Your task to perform on an android device: open wifi settings Image 0: 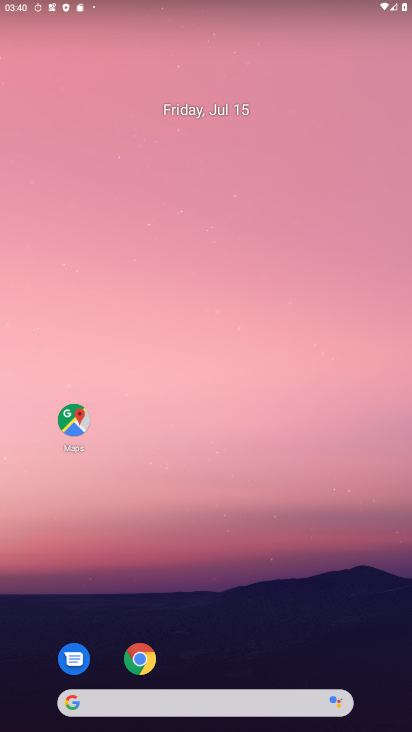
Step 0: drag from (292, 586) to (322, 0)
Your task to perform on an android device: open wifi settings Image 1: 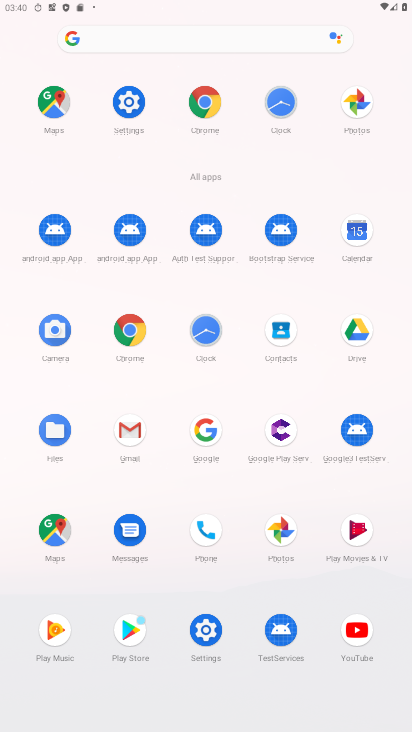
Step 1: click (125, 107)
Your task to perform on an android device: open wifi settings Image 2: 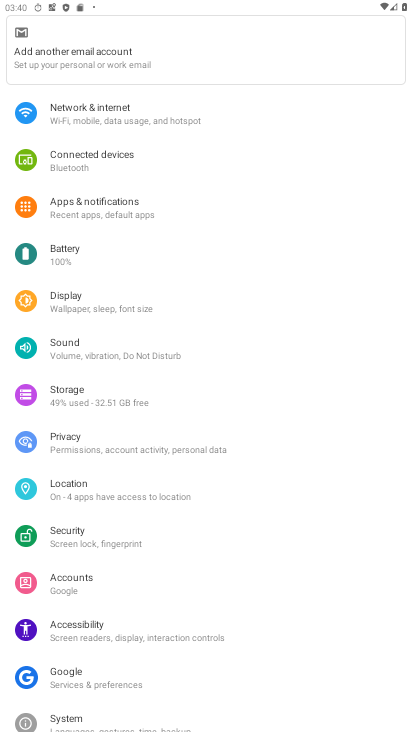
Step 2: click (115, 124)
Your task to perform on an android device: open wifi settings Image 3: 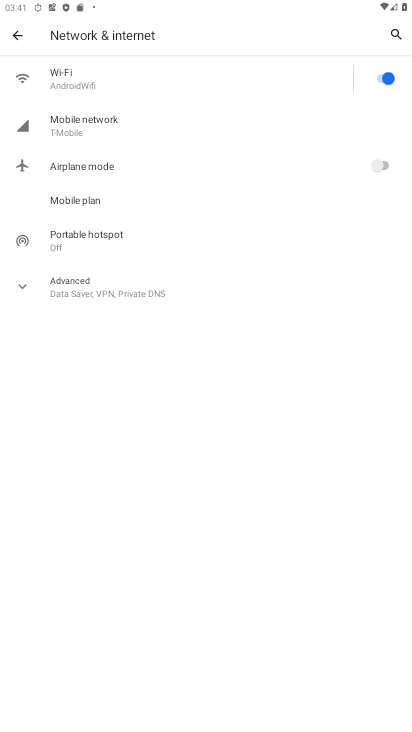
Step 3: click (67, 66)
Your task to perform on an android device: open wifi settings Image 4: 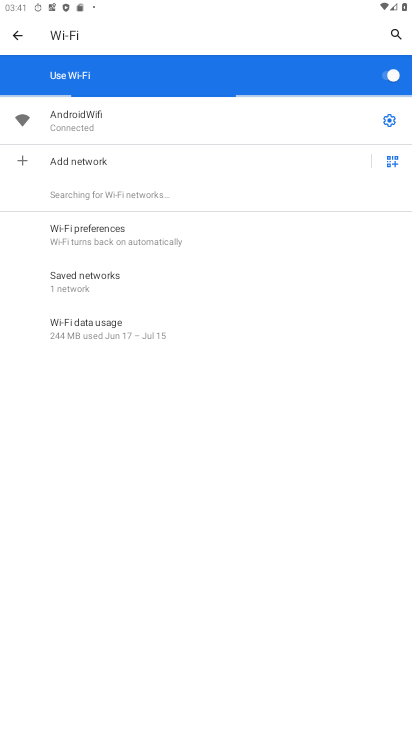
Step 4: task complete